Your task to perform on an android device: What's the weather going to be this weekend? Image 0: 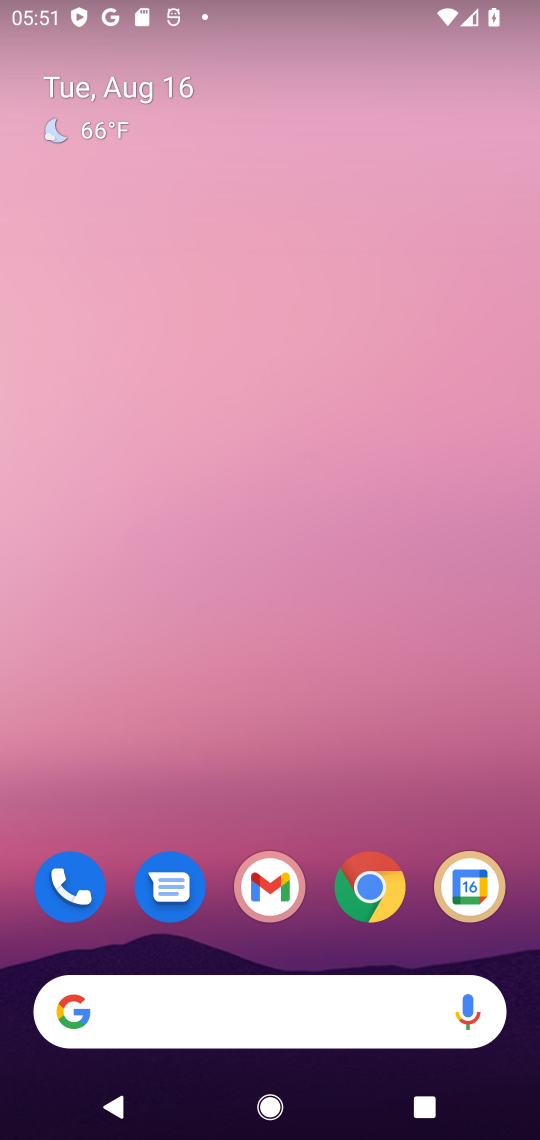
Step 0: click (103, 137)
Your task to perform on an android device: What's the weather going to be this weekend? Image 1: 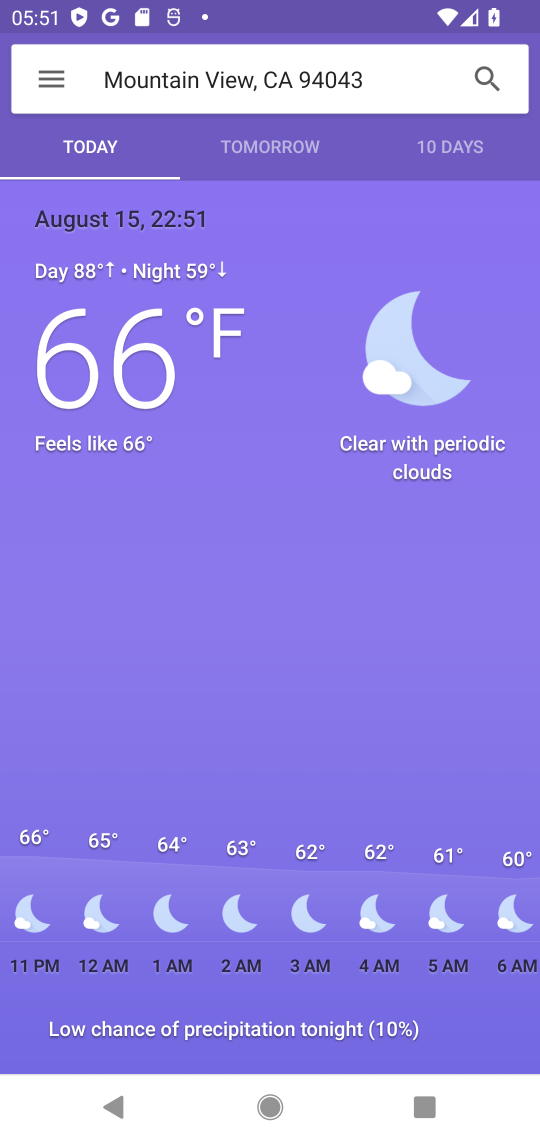
Step 1: click (455, 139)
Your task to perform on an android device: What's the weather going to be this weekend? Image 2: 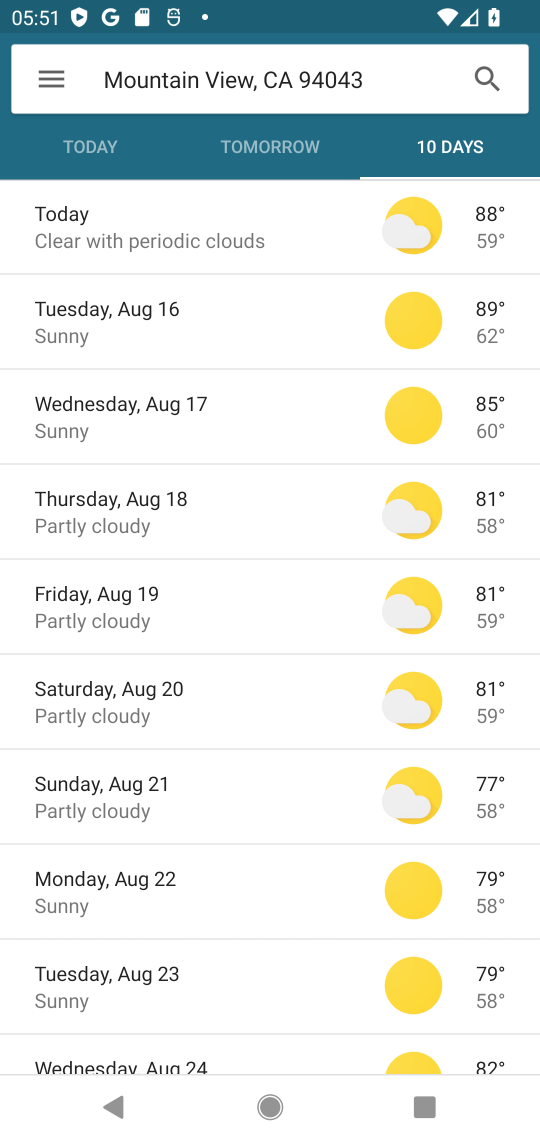
Step 2: task complete